Your task to perform on an android device: Open privacy settings Image 0: 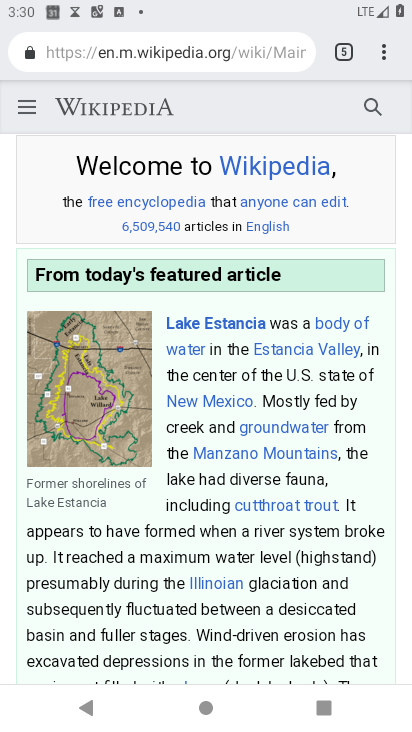
Step 0: press home button
Your task to perform on an android device: Open privacy settings Image 1: 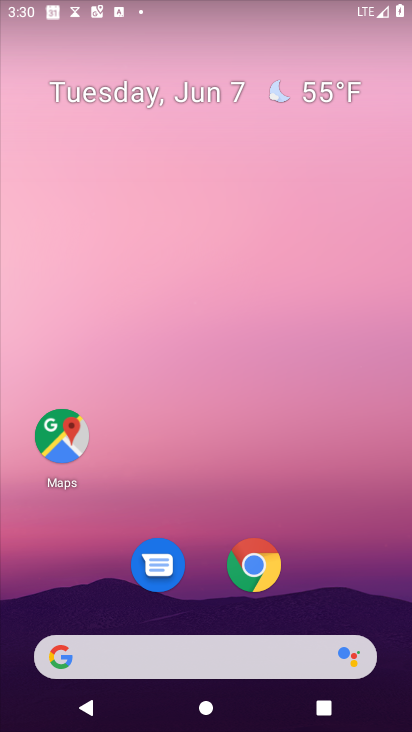
Step 1: drag from (255, 644) to (292, 46)
Your task to perform on an android device: Open privacy settings Image 2: 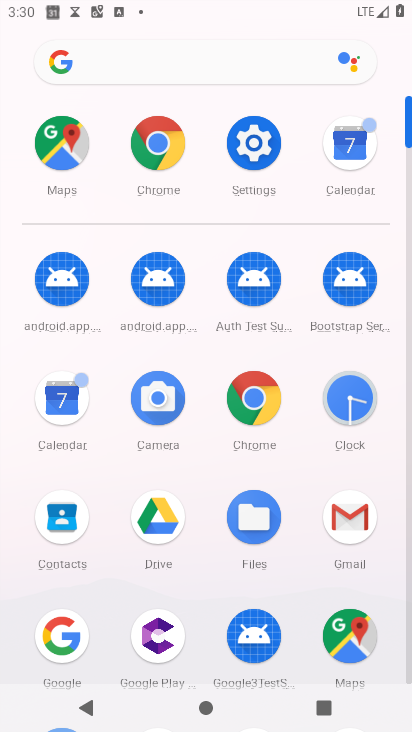
Step 2: click (254, 140)
Your task to perform on an android device: Open privacy settings Image 3: 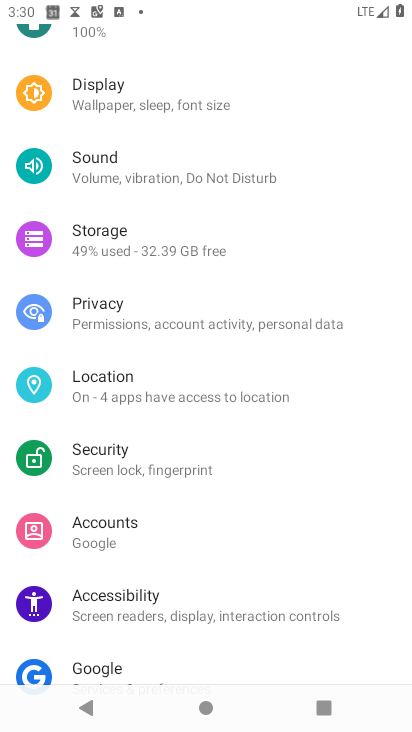
Step 3: click (172, 318)
Your task to perform on an android device: Open privacy settings Image 4: 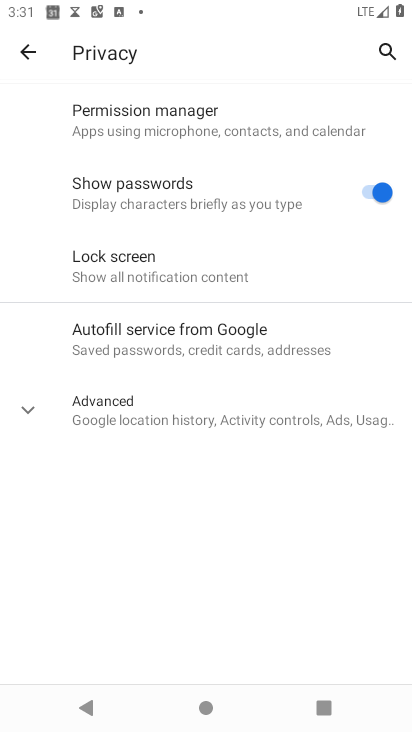
Step 4: task complete